Your task to perform on an android device: Is it going to rain today? Image 0: 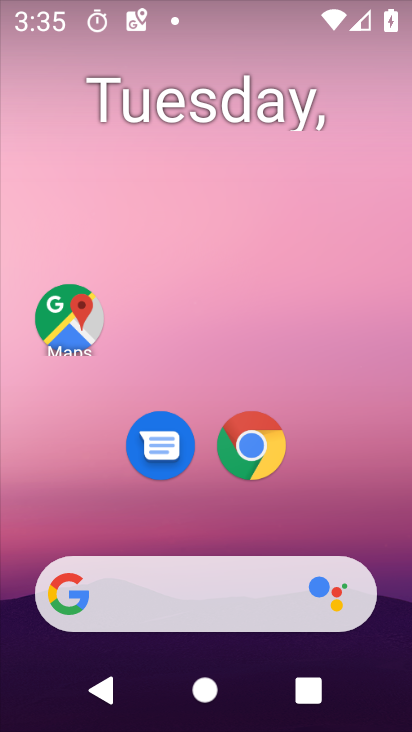
Step 0: click (213, 573)
Your task to perform on an android device: Is it going to rain today? Image 1: 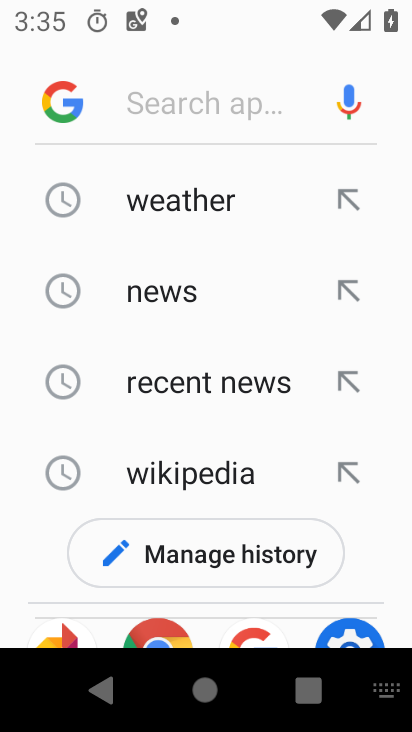
Step 1: click (132, 203)
Your task to perform on an android device: Is it going to rain today? Image 2: 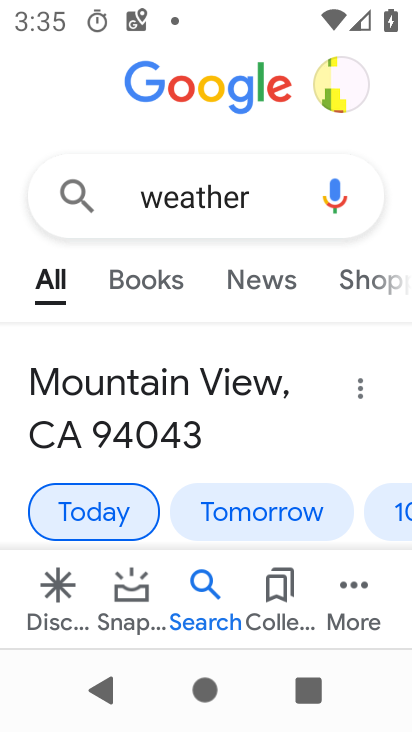
Step 2: task complete